Your task to perform on an android device: star an email in the gmail app Image 0: 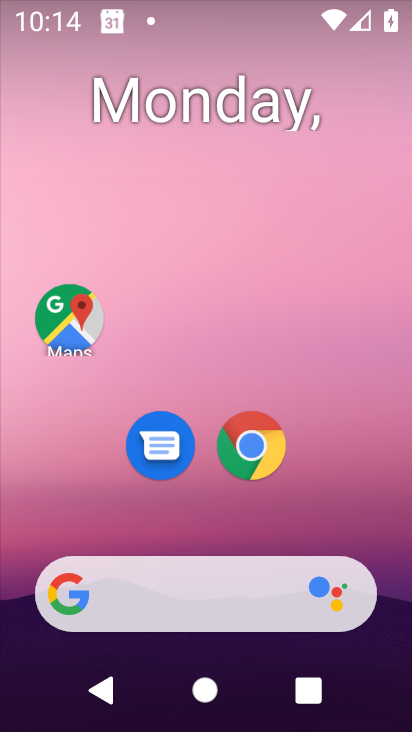
Step 0: drag from (259, 689) to (380, 1)
Your task to perform on an android device: star an email in the gmail app Image 1: 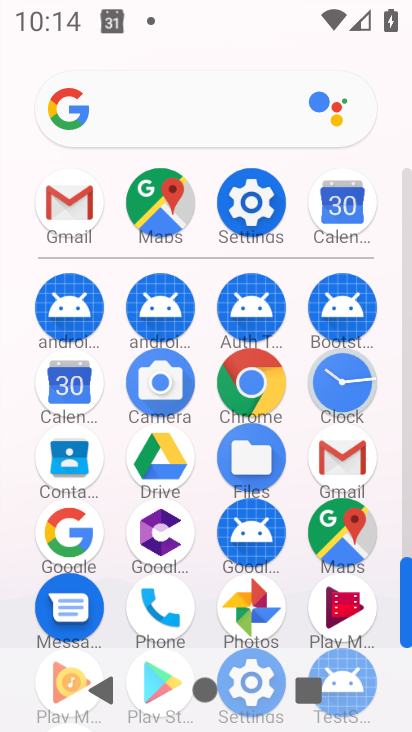
Step 1: click (58, 212)
Your task to perform on an android device: star an email in the gmail app Image 2: 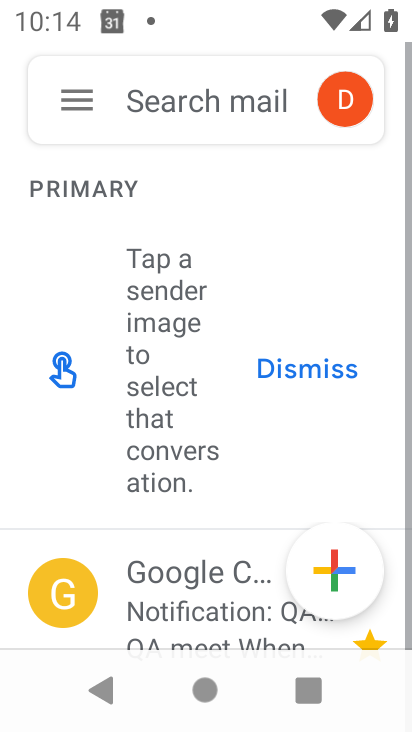
Step 2: task complete